Your task to perform on an android device: Go to internet settings Image 0: 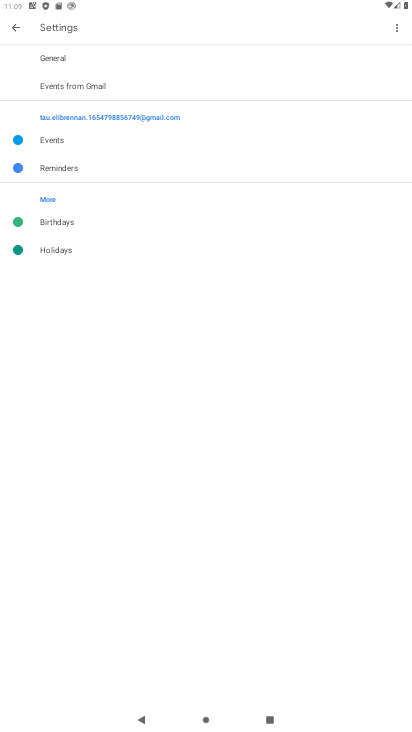
Step 0: press home button
Your task to perform on an android device: Go to internet settings Image 1: 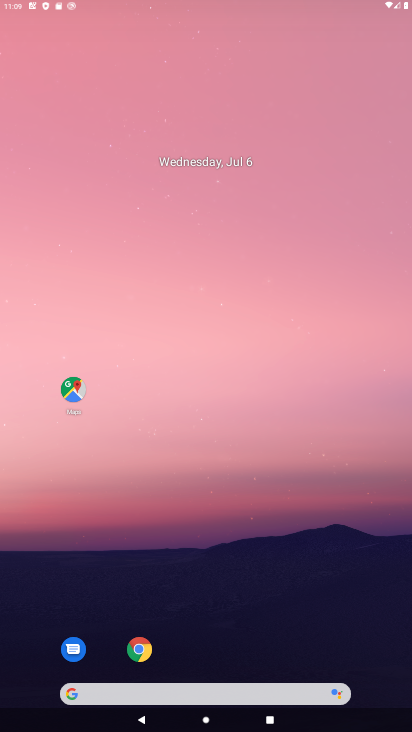
Step 1: drag from (394, 697) to (242, 53)
Your task to perform on an android device: Go to internet settings Image 2: 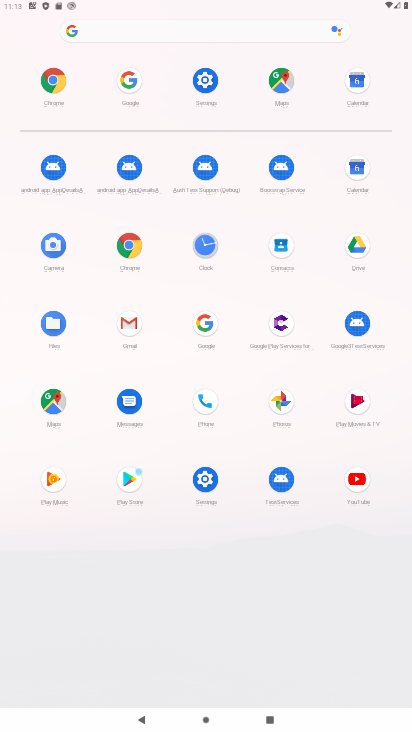
Step 2: click (213, 77)
Your task to perform on an android device: Go to internet settings Image 3: 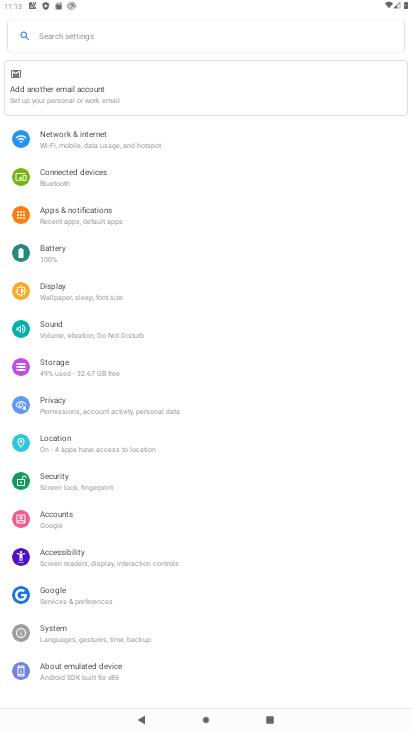
Step 3: click (153, 149)
Your task to perform on an android device: Go to internet settings Image 4: 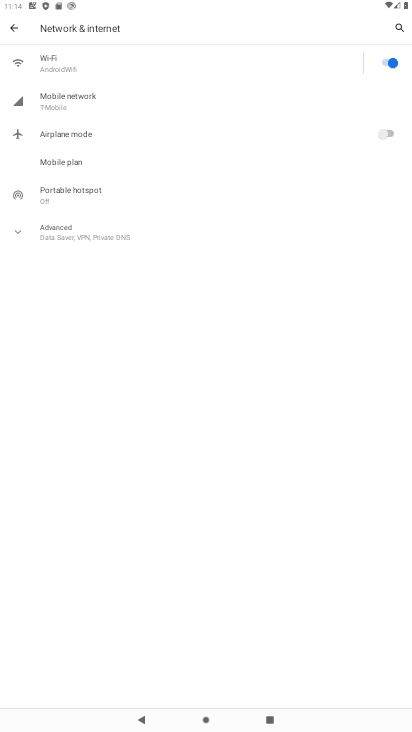
Step 4: task complete